Your task to perform on an android device: turn pop-ups on in chrome Image 0: 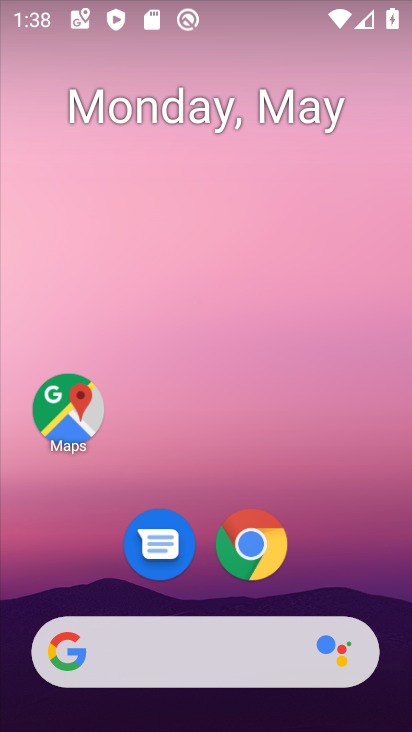
Step 0: drag from (379, 592) to (385, 197)
Your task to perform on an android device: turn pop-ups on in chrome Image 1: 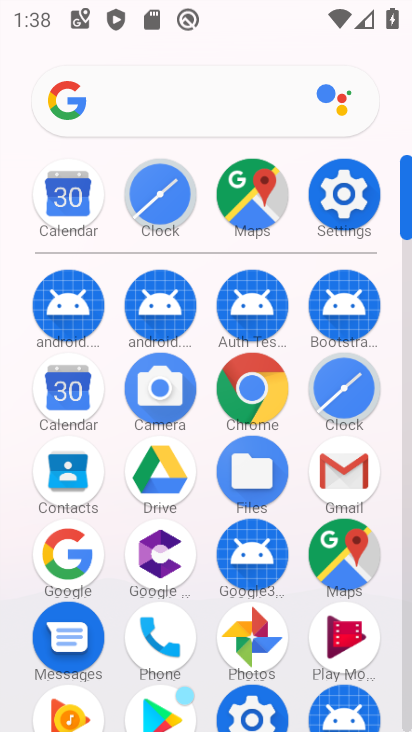
Step 1: click (266, 396)
Your task to perform on an android device: turn pop-ups on in chrome Image 2: 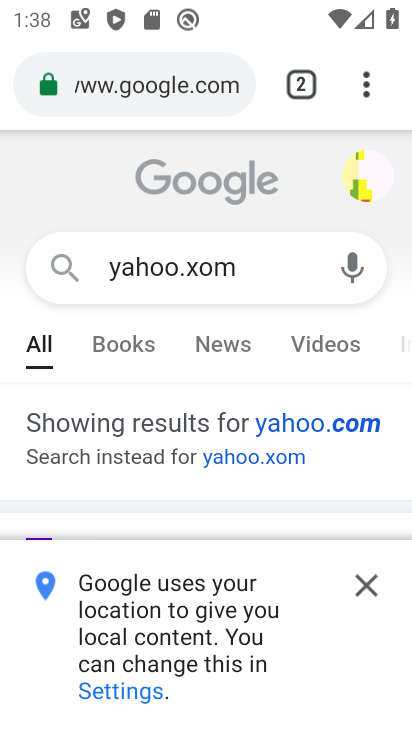
Step 2: click (364, 93)
Your task to perform on an android device: turn pop-ups on in chrome Image 3: 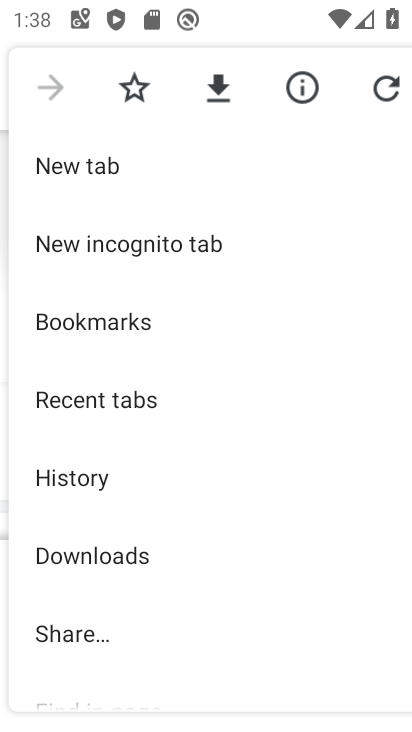
Step 3: drag from (292, 511) to (288, 407)
Your task to perform on an android device: turn pop-ups on in chrome Image 4: 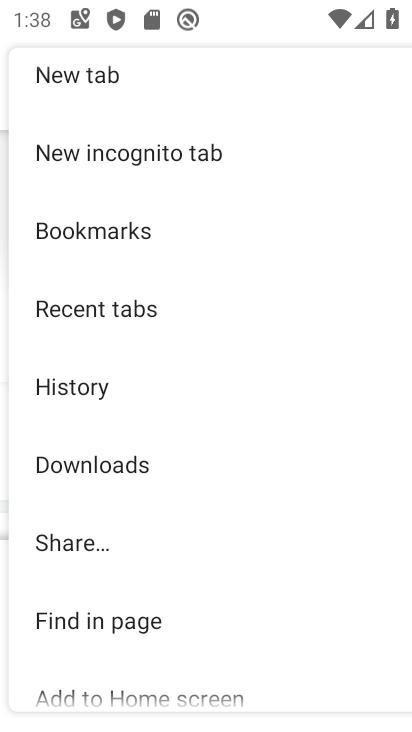
Step 4: drag from (288, 531) to (287, 399)
Your task to perform on an android device: turn pop-ups on in chrome Image 5: 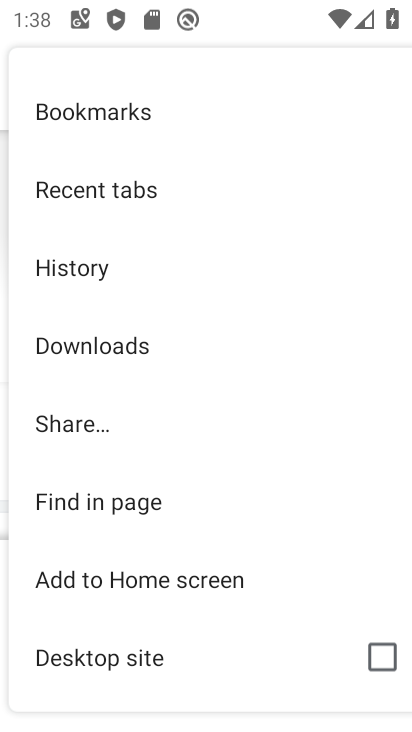
Step 5: drag from (279, 533) to (285, 373)
Your task to perform on an android device: turn pop-ups on in chrome Image 6: 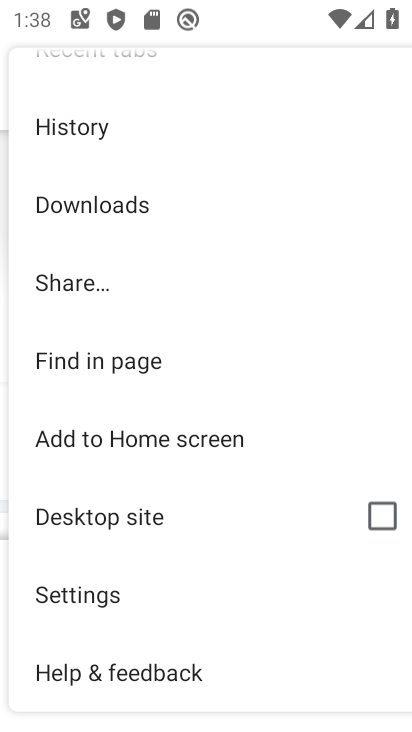
Step 6: drag from (267, 581) to (277, 428)
Your task to perform on an android device: turn pop-ups on in chrome Image 7: 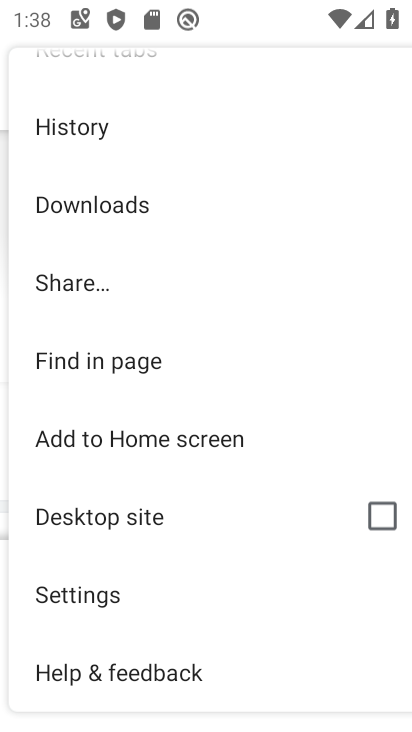
Step 7: click (135, 603)
Your task to perform on an android device: turn pop-ups on in chrome Image 8: 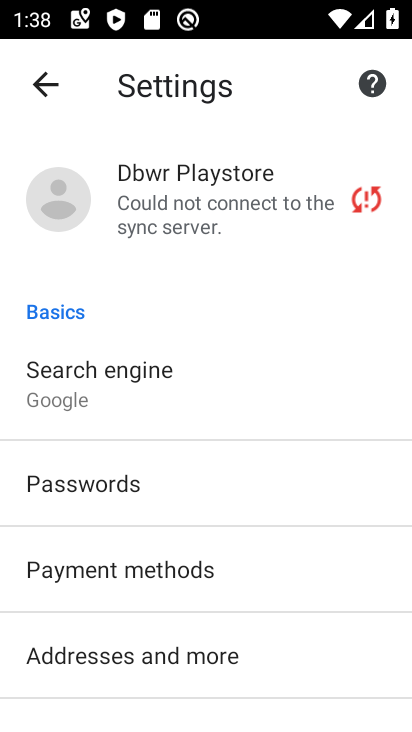
Step 8: drag from (315, 594) to (339, 476)
Your task to perform on an android device: turn pop-ups on in chrome Image 9: 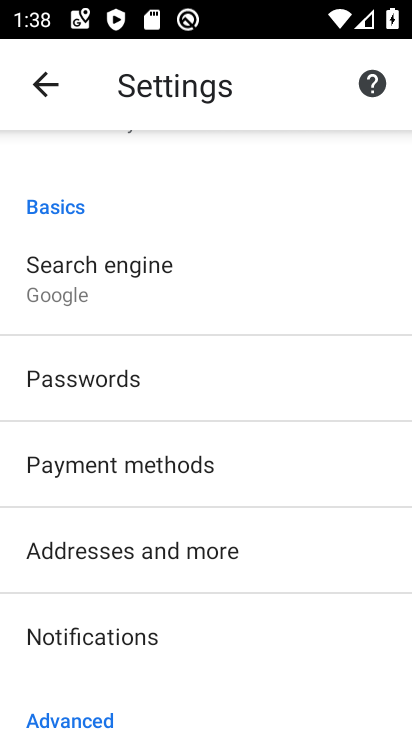
Step 9: drag from (334, 615) to (344, 499)
Your task to perform on an android device: turn pop-ups on in chrome Image 10: 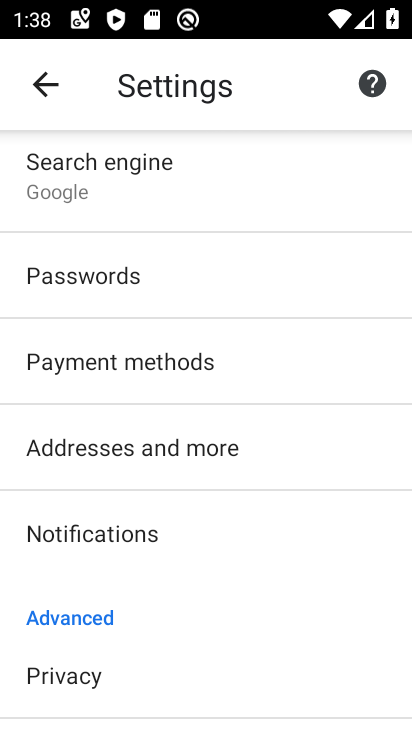
Step 10: drag from (347, 595) to (355, 471)
Your task to perform on an android device: turn pop-ups on in chrome Image 11: 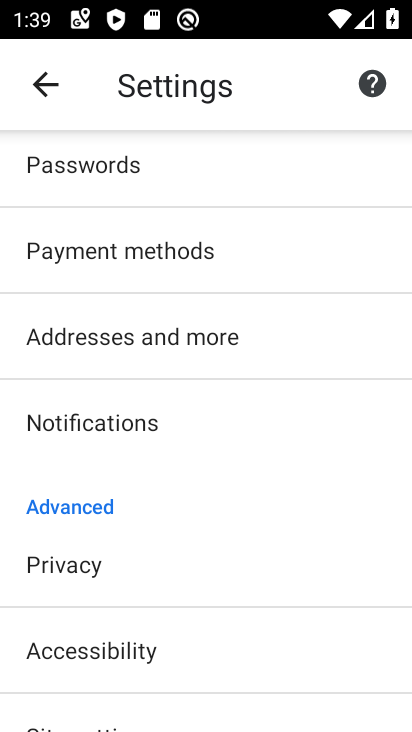
Step 11: drag from (316, 620) to (331, 497)
Your task to perform on an android device: turn pop-ups on in chrome Image 12: 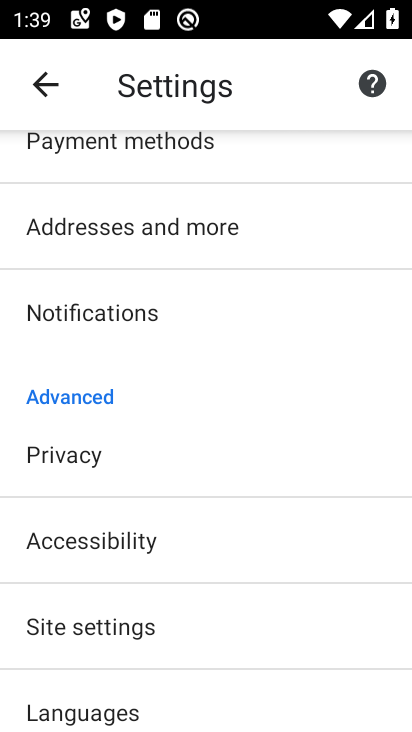
Step 12: drag from (316, 638) to (322, 500)
Your task to perform on an android device: turn pop-ups on in chrome Image 13: 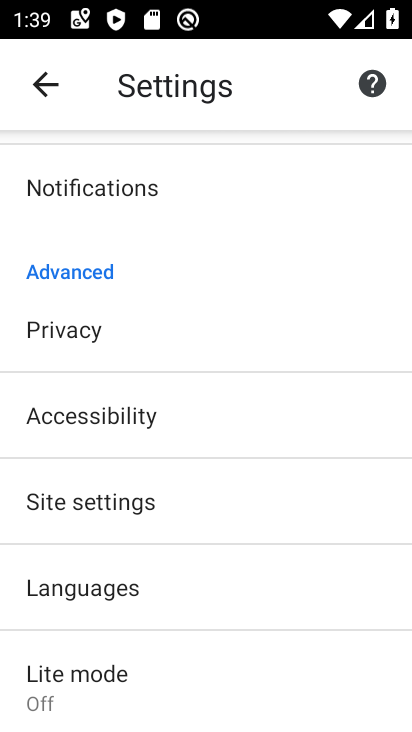
Step 13: drag from (323, 654) to (328, 394)
Your task to perform on an android device: turn pop-ups on in chrome Image 14: 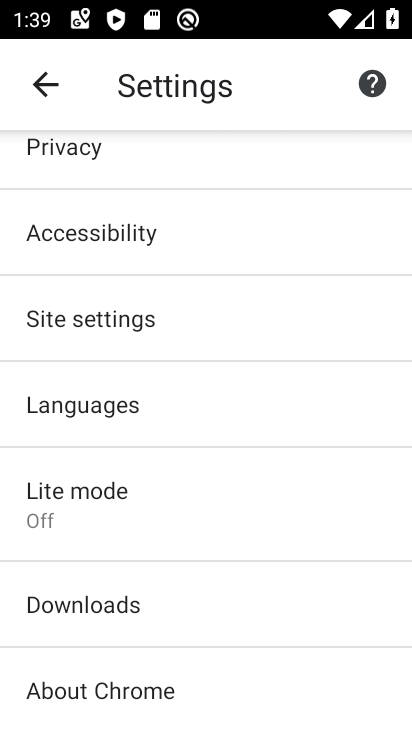
Step 14: click (261, 309)
Your task to perform on an android device: turn pop-ups on in chrome Image 15: 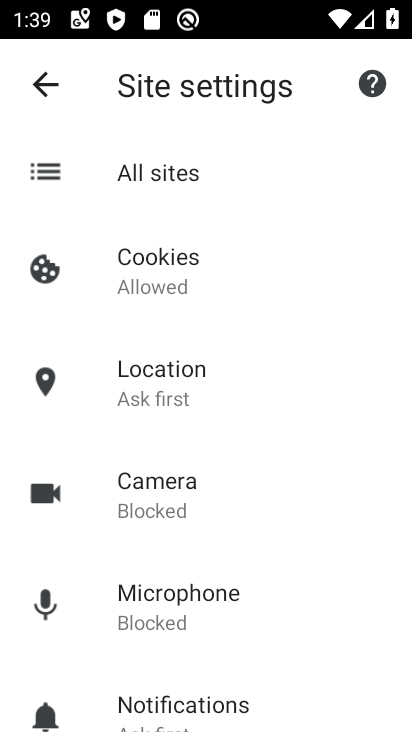
Step 15: drag from (328, 483) to (328, 383)
Your task to perform on an android device: turn pop-ups on in chrome Image 16: 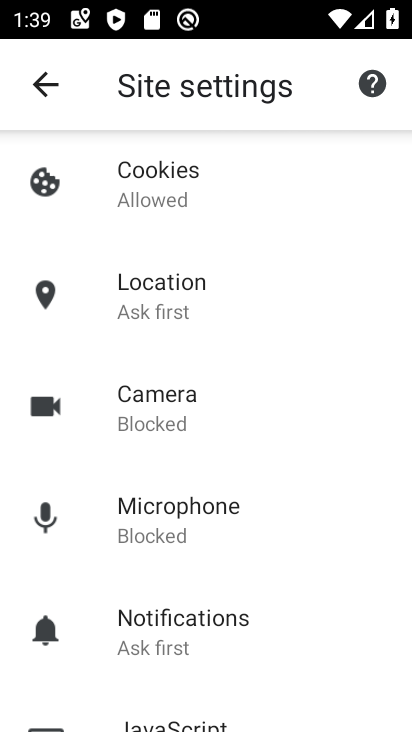
Step 16: drag from (331, 510) to (327, 389)
Your task to perform on an android device: turn pop-ups on in chrome Image 17: 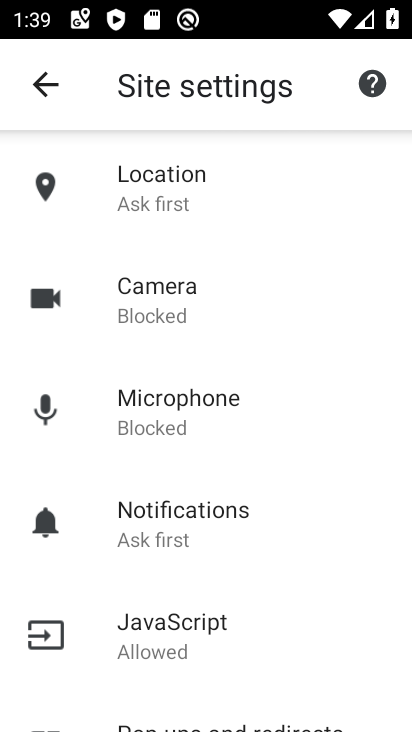
Step 17: drag from (309, 564) to (311, 426)
Your task to perform on an android device: turn pop-ups on in chrome Image 18: 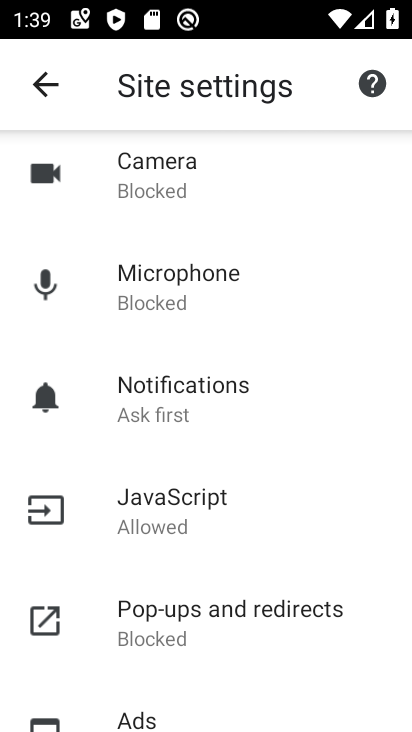
Step 18: drag from (303, 583) to (301, 452)
Your task to perform on an android device: turn pop-ups on in chrome Image 19: 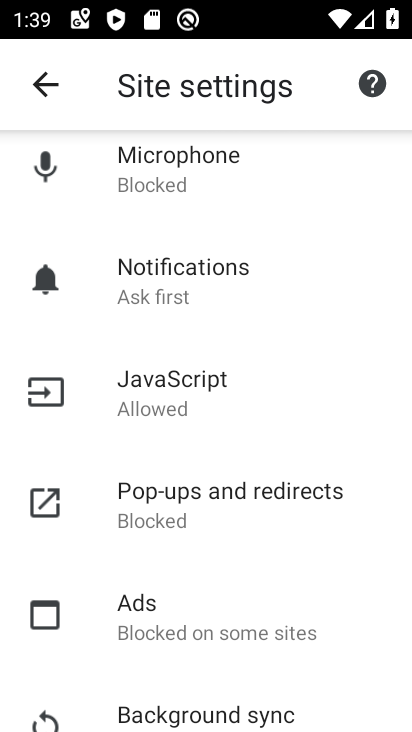
Step 19: drag from (301, 572) to (312, 460)
Your task to perform on an android device: turn pop-ups on in chrome Image 20: 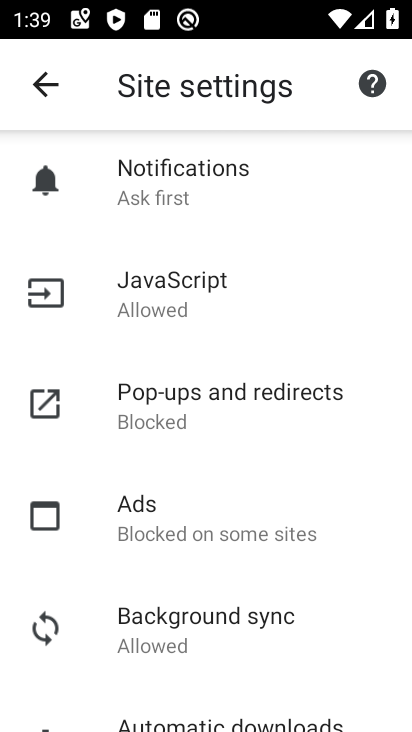
Step 20: click (259, 394)
Your task to perform on an android device: turn pop-ups on in chrome Image 21: 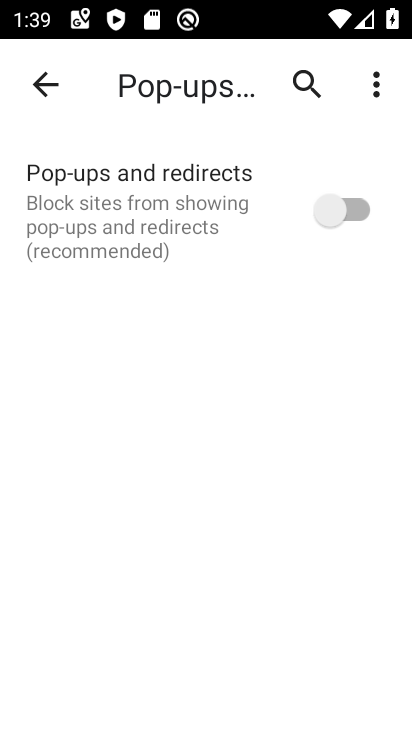
Step 21: click (338, 215)
Your task to perform on an android device: turn pop-ups on in chrome Image 22: 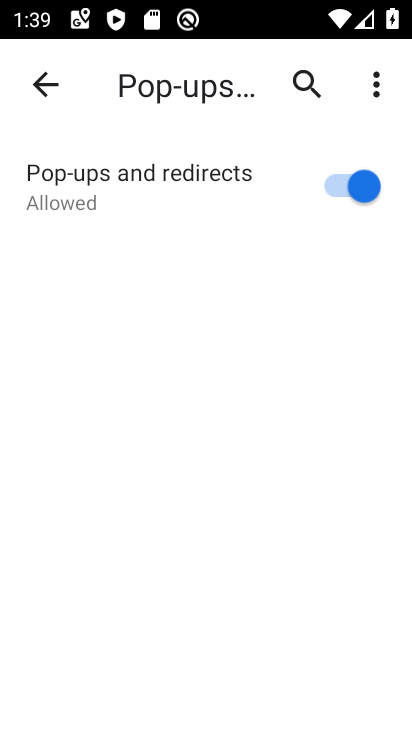
Step 22: task complete